Your task to perform on an android device: Do I have any events today? Image 0: 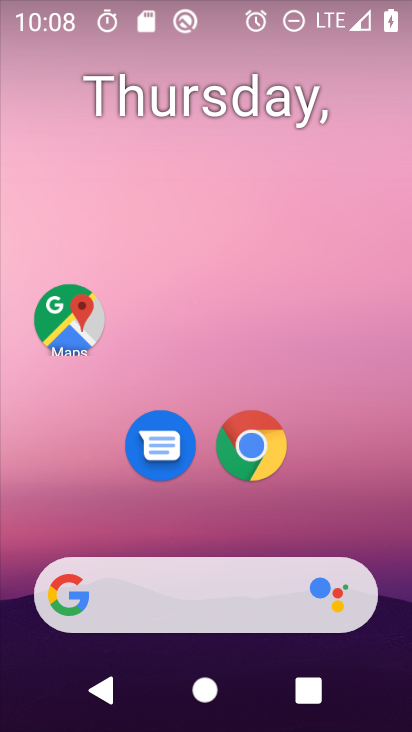
Step 0: drag from (212, 541) to (285, 107)
Your task to perform on an android device: Do I have any events today? Image 1: 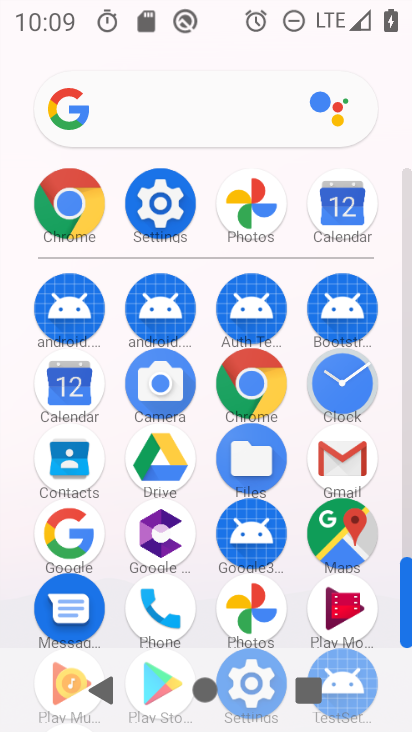
Step 1: click (58, 375)
Your task to perform on an android device: Do I have any events today? Image 2: 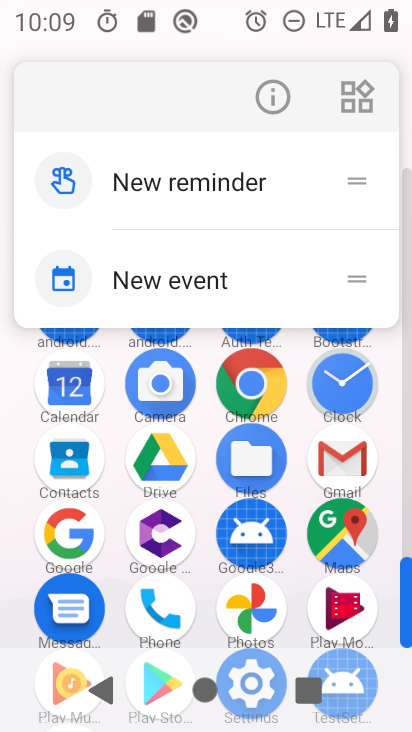
Step 2: click (283, 95)
Your task to perform on an android device: Do I have any events today? Image 3: 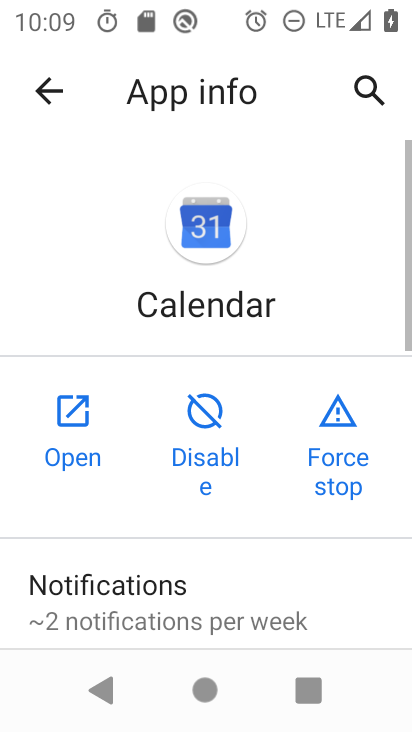
Step 3: click (65, 432)
Your task to perform on an android device: Do I have any events today? Image 4: 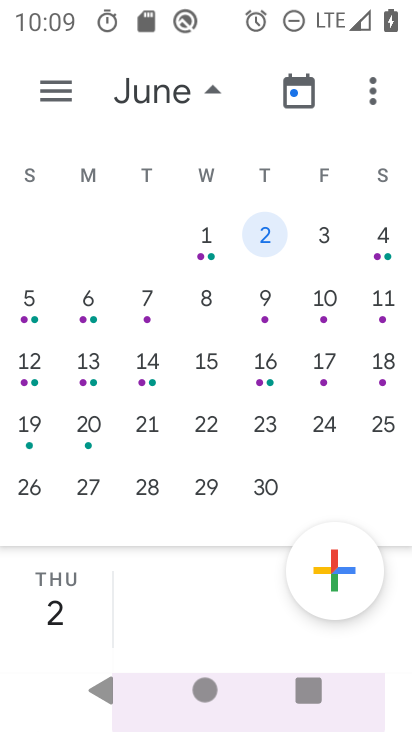
Step 4: drag from (19, 359) to (401, 351)
Your task to perform on an android device: Do I have any events today? Image 5: 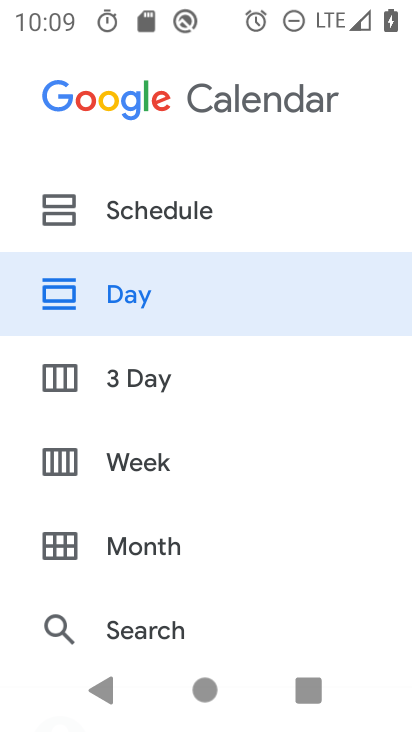
Step 5: click (78, 297)
Your task to perform on an android device: Do I have any events today? Image 6: 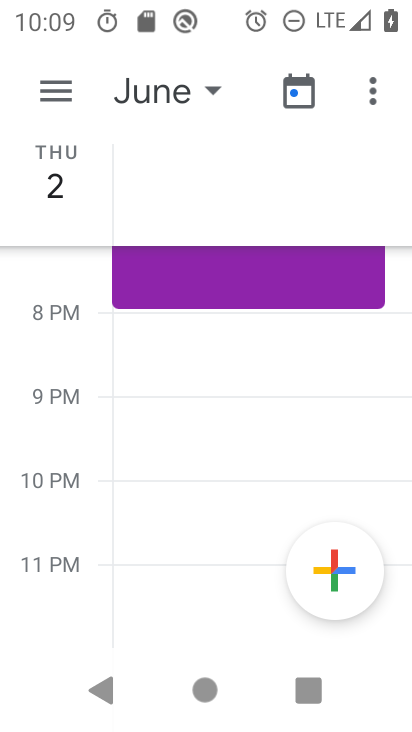
Step 6: click (142, 99)
Your task to perform on an android device: Do I have any events today? Image 7: 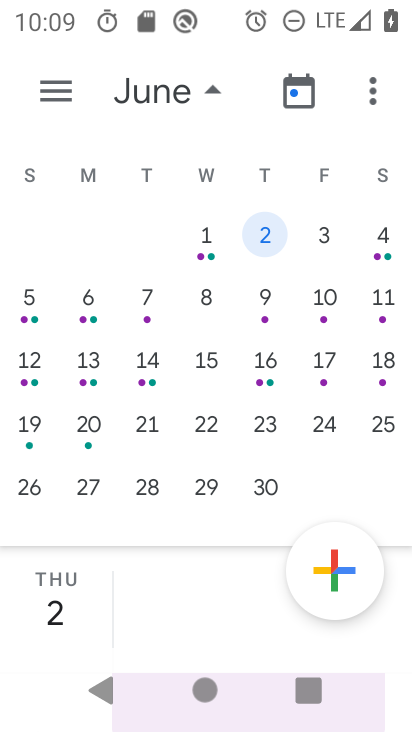
Step 7: drag from (142, 282) to (407, 270)
Your task to perform on an android device: Do I have any events today? Image 8: 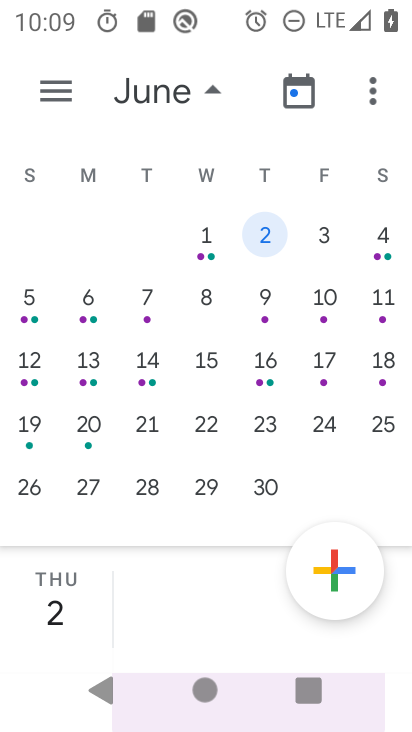
Step 8: drag from (31, 356) to (411, 316)
Your task to perform on an android device: Do I have any events today? Image 9: 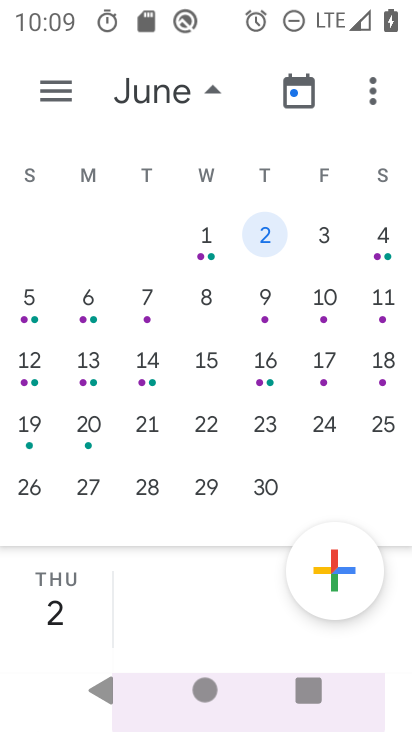
Step 9: drag from (121, 355) to (408, 395)
Your task to perform on an android device: Do I have any events today? Image 10: 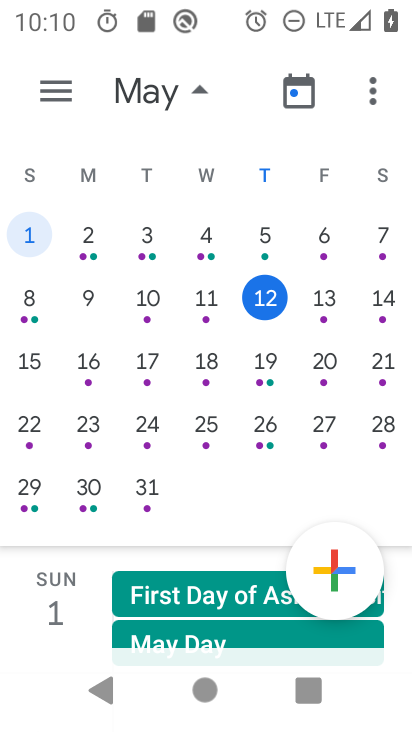
Step 10: click (381, 291)
Your task to perform on an android device: Do I have any events today? Image 11: 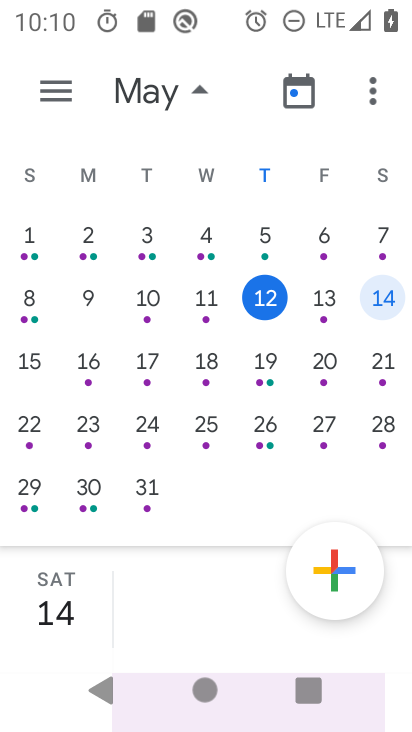
Step 11: task complete